Your task to perform on an android device: Find coffee shops on Maps Image 0: 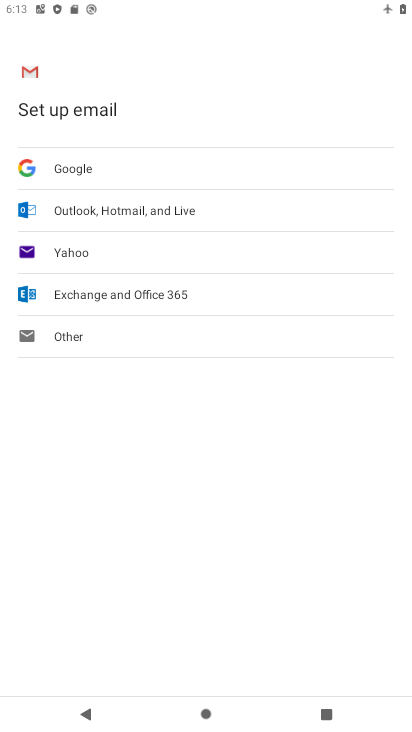
Step 0: press home button
Your task to perform on an android device: Find coffee shops on Maps Image 1: 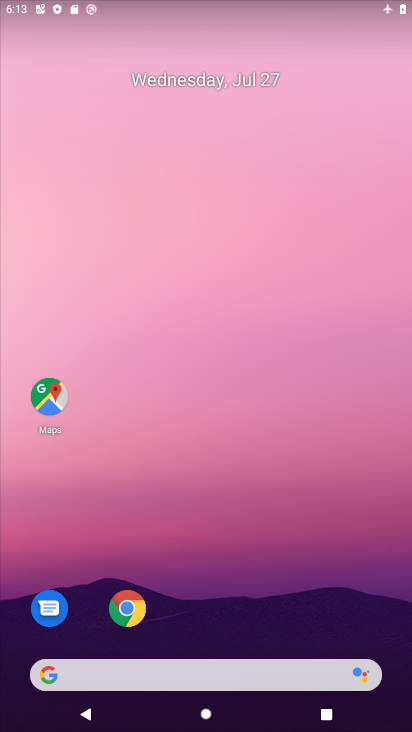
Step 1: click (47, 406)
Your task to perform on an android device: Find coffee shops on Maps Image 2: 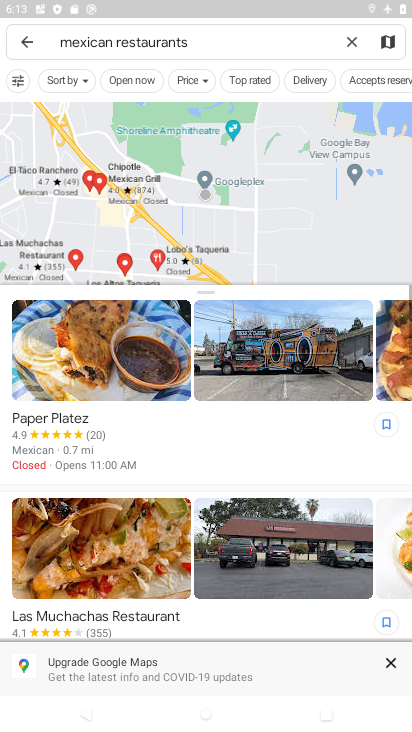
Step 2: click (27, 44)
Your task to perform on an android device: Find coffee shops on Maps Image 3: 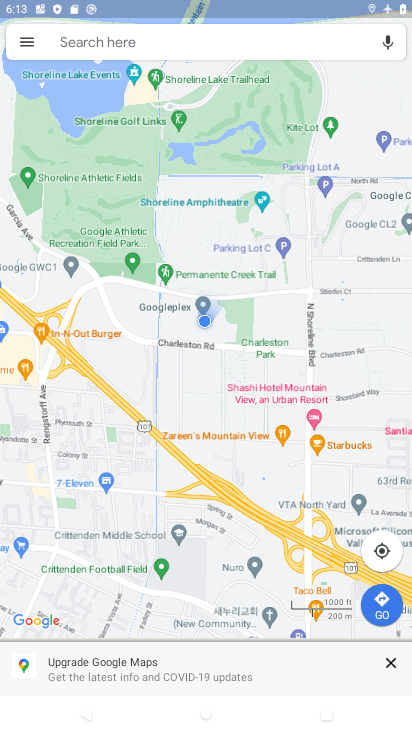
Step 3: click (82, 39)
Your task to perform on an android device: Find coffee shops on Maps Image 4: 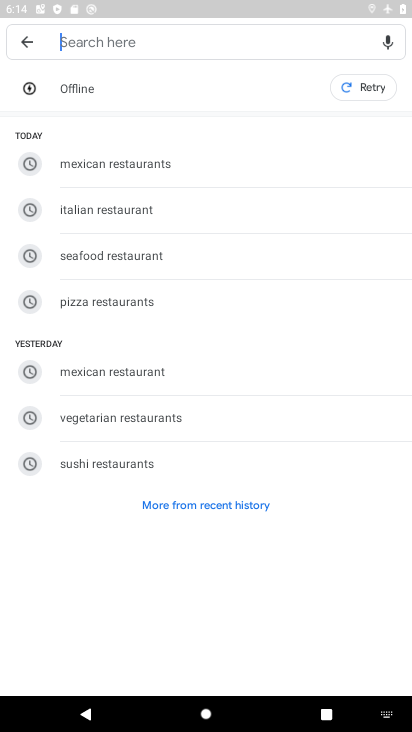
Step 4: press enter
Your task to perform on an android device: Find coffee shops on Maps Image 5: 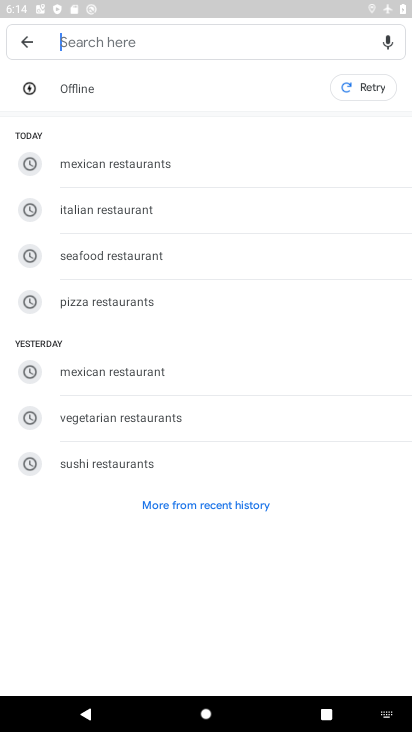
Step 5: type "coffee shops "
Your task to perform on an android device: Find coffee shops on Maps Image 6: 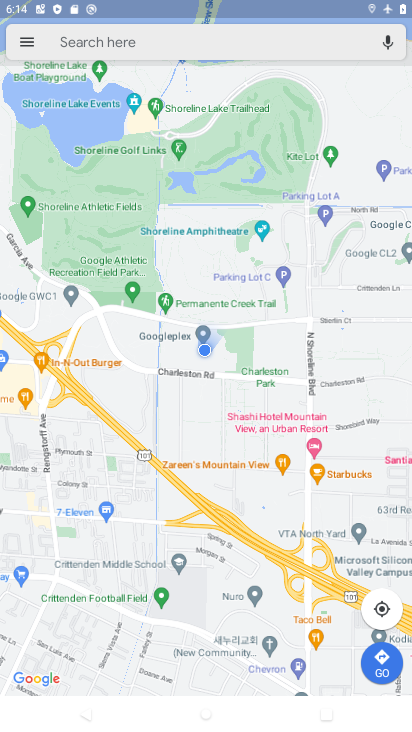
Step 6: click (160, 29)
Your task to perform on an android device: Find coffee shops on Maps Image 7: 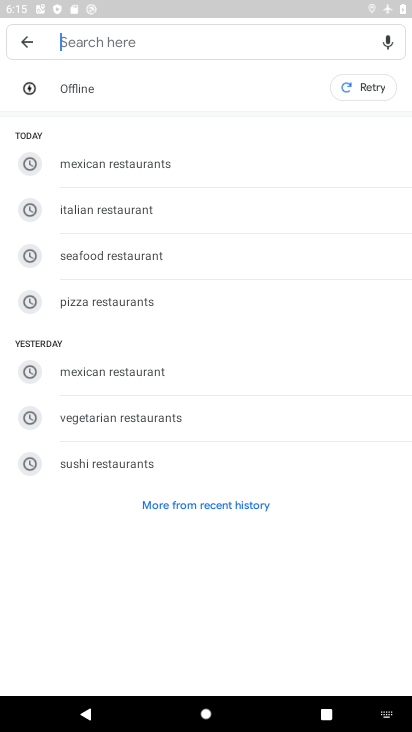
Step 7: press enter
Your task to perform on an android device: Find coffee shops on Maps Image 8: 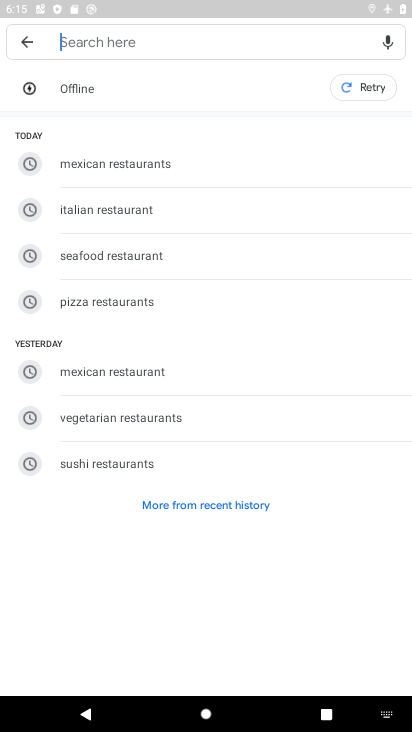
Step 8: type "coffee shops "
Your task to perform on an android device: Find coffee shops on Maps Image 9: 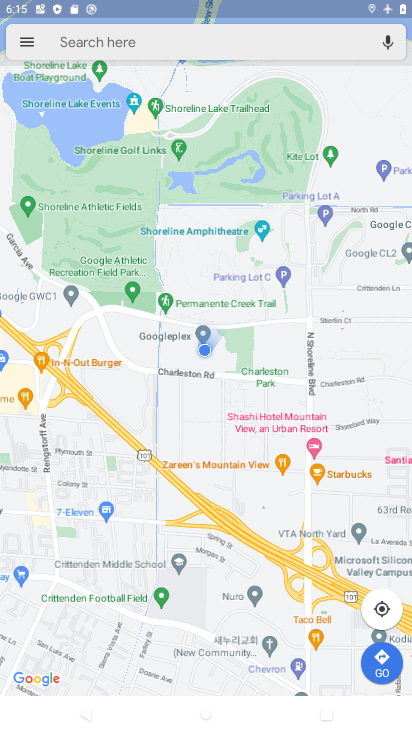
Step 9: drag from (85, 5) to (220, 578)
Your task to perform on an android device: Find coffee shops on Maps Image 10: 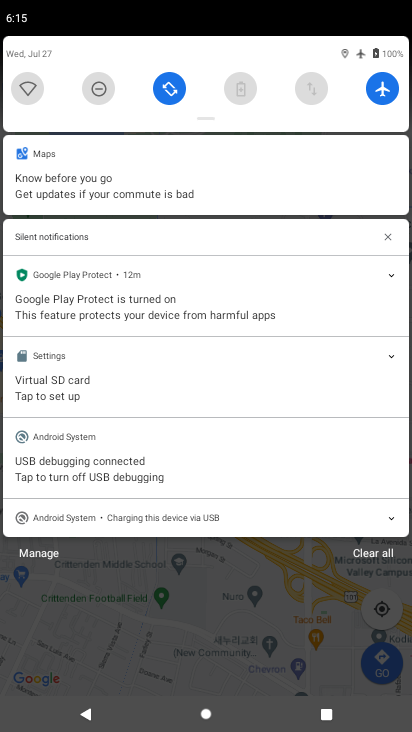
Step 10: click (24, 81)
Your task to perform on an android device: Find coffee shops on Maps Image 11: 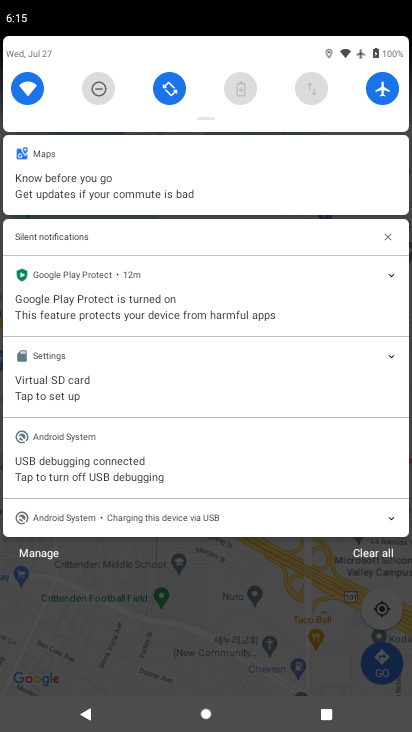
Step 11: click (364, 553)
Your task to perform on an android device: Find coffee shops on Maps Image 12: 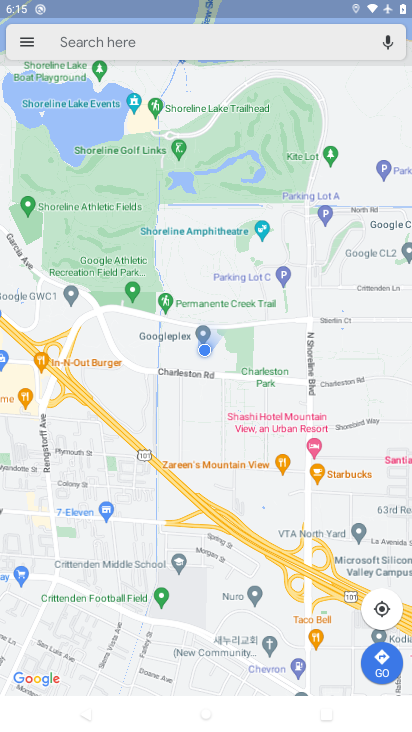
Step 12: press home button
Your task to perform on an android device: Find coffee shops on Maps Image 13: 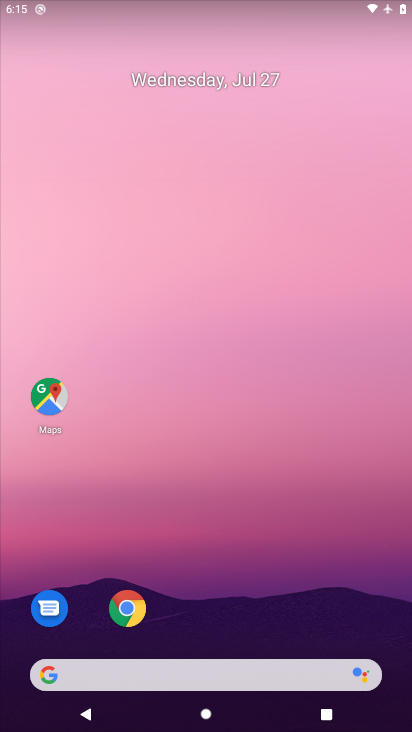
Step 13: click (50, 399)
Your task to perform on an android device: Find coffee shops on Maps Image 14: 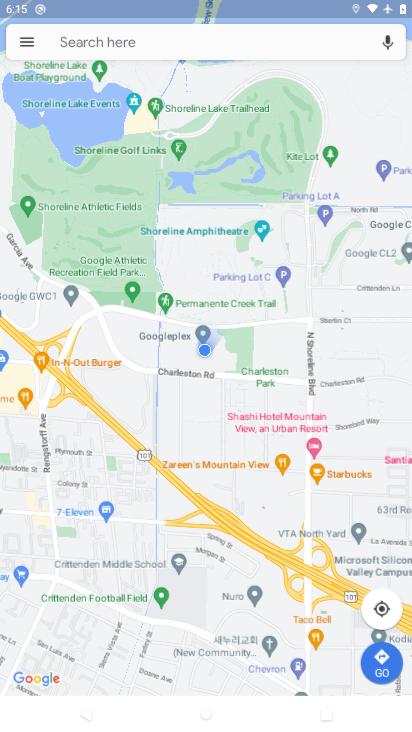
Step 14: click (50, 399)
Your task to perform on an android device: Find coffee shops on Maps Image 15: 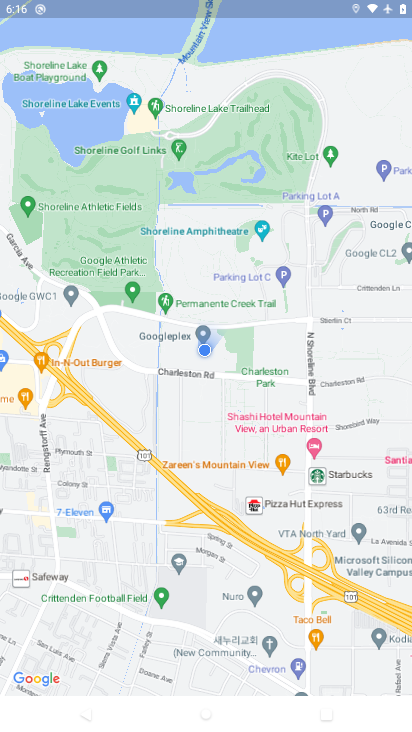
Step 15: press enter
Your task to perform on an android device: Find coffee shops on Maps Image 16: 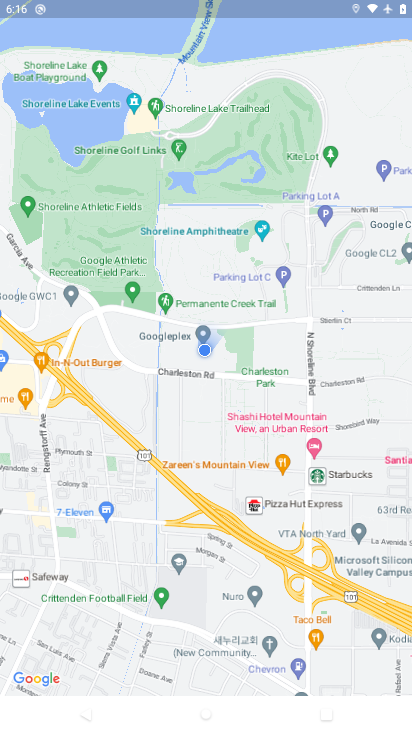
Step 16: type "coffee shops "
Your task to perform on an android device: Find coffee shops on Maps Image 17: 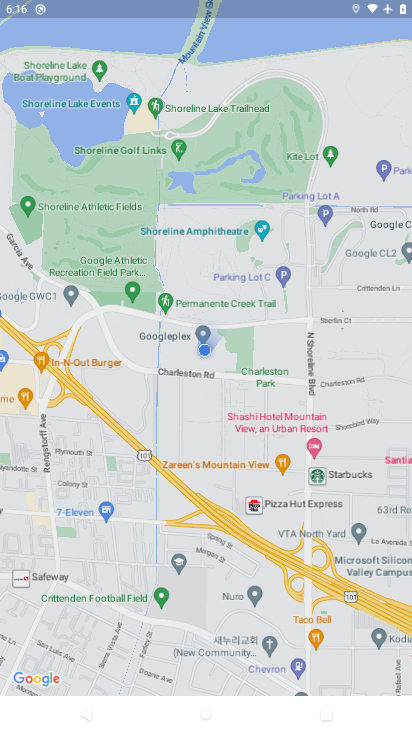
Step 17: click (199, 10)
Your task to perform on an android device: Find coffee shops on Maps Image 18: 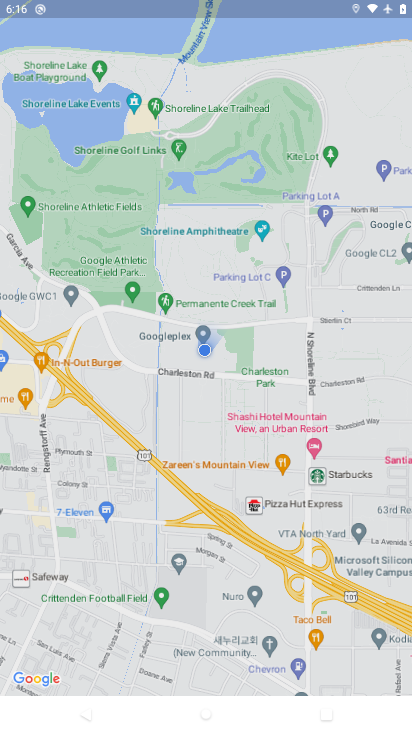
Step 18: task complete